Your task to perform on an android device: When is my next meeting? Image 0: 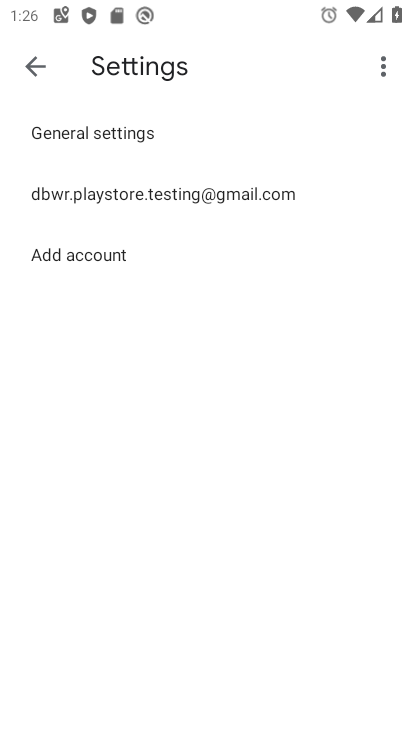
Step 0: press home button
Your task to perform on an android device: When is my next meeting? Image 1: 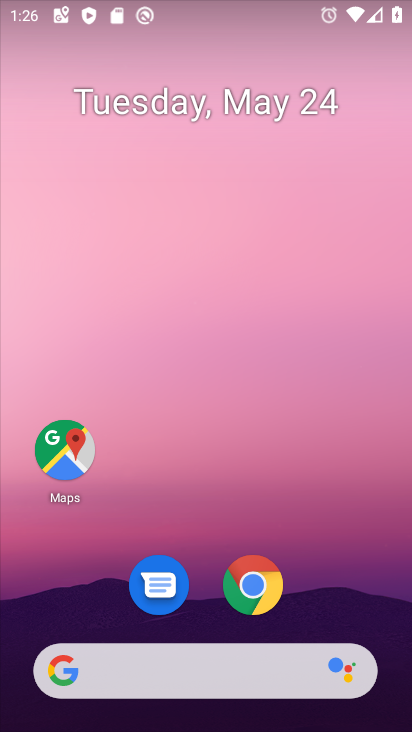
Step 1: drag from (229, 490) to (209, 52)
Your task to perform on an android device: When is my next meeting? Image 2: 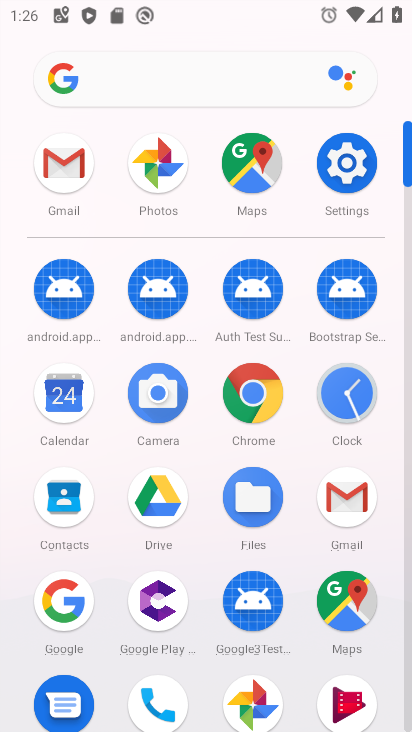
Step 2: click (60, 382)
Your task to perform on an android device: When is my next meeting? Image 3: 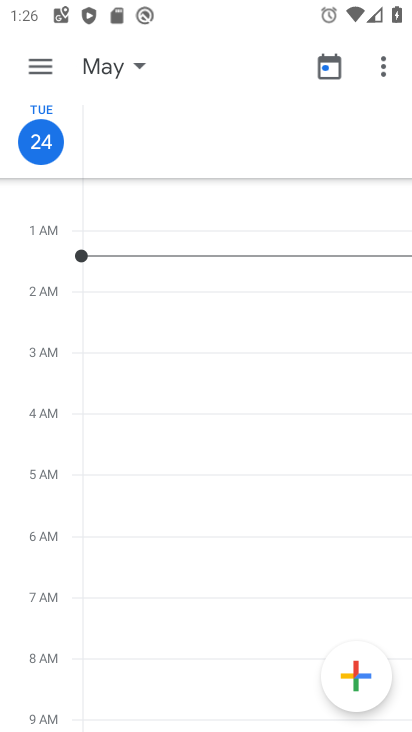
Step 3: click (46, 65)
Your task to perform on an android device: When is my next meeting? Image 4: 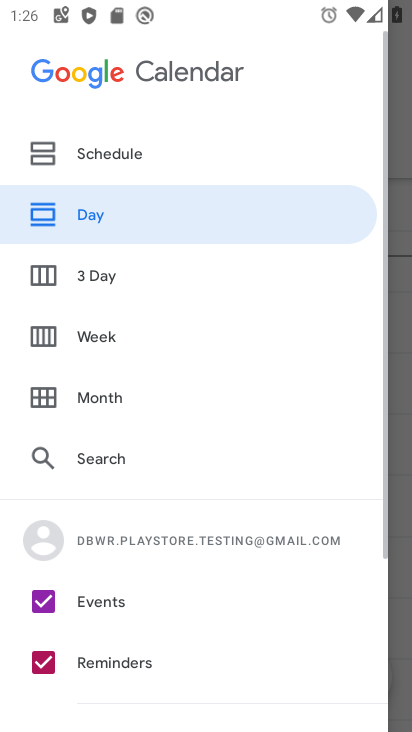
Step 4: click (81, 149)
Your task to perform on an android device: When is my next meeting? Image 5: 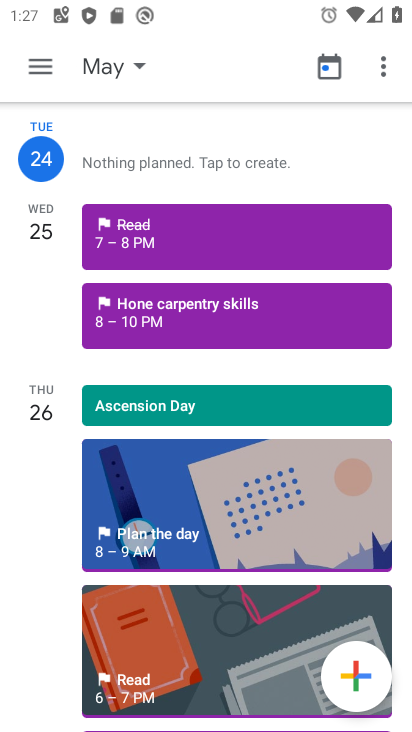
Step 5: task complete